Your task to perform on an android device: delete browsing data in the chrome app Image 0: 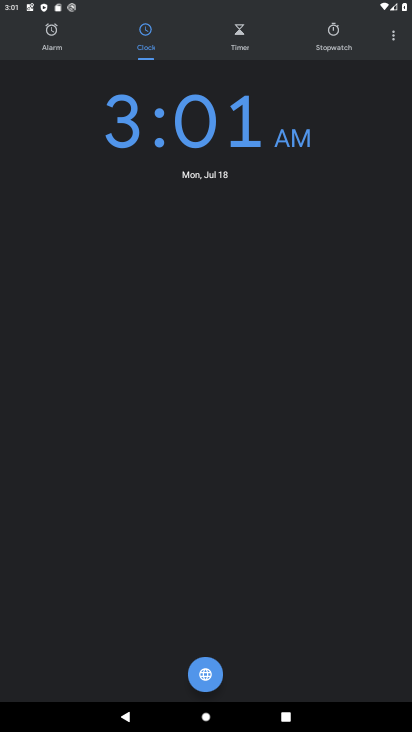
Step 0: press home button
Your task to perform on an android device: delete browsing data in the chrome app Image 1: 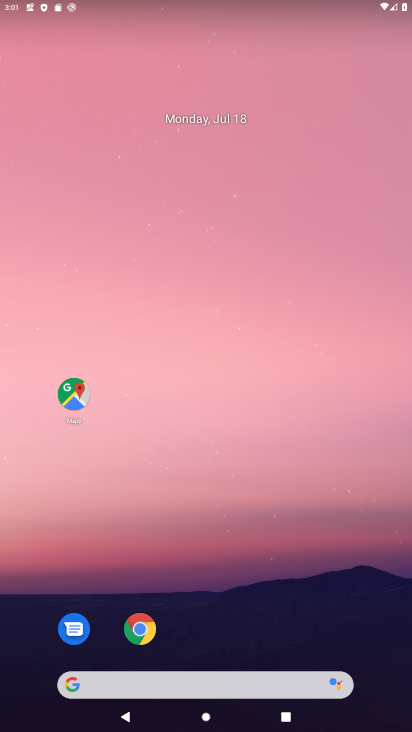
Step 1: click (139, 624)
Your task to perform on an android device: delete browsing data in the chrome app Image 2: 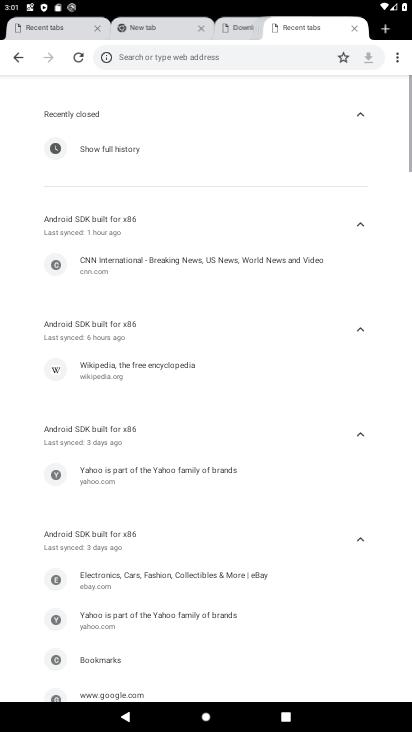
Step 2: click (393, 56)
Your task to perform on an android device: delete browsing data in the chrome app Image 3: 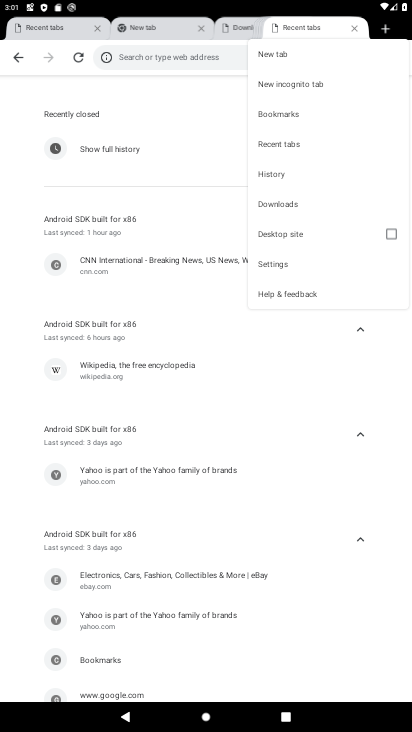
Step 3: click (284, 170)
Your task to perform on an android device: delete browsing data in the chrome app Image 4: 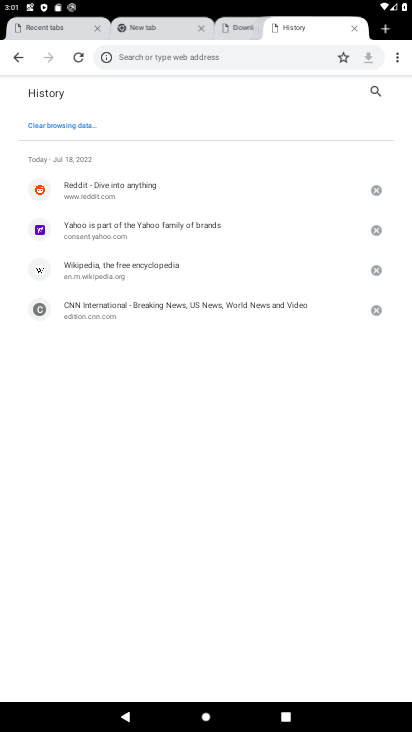
Step 4: click (82, 123)
Your task to perform on an android device: delete browsing data in the chrome app Image 5: 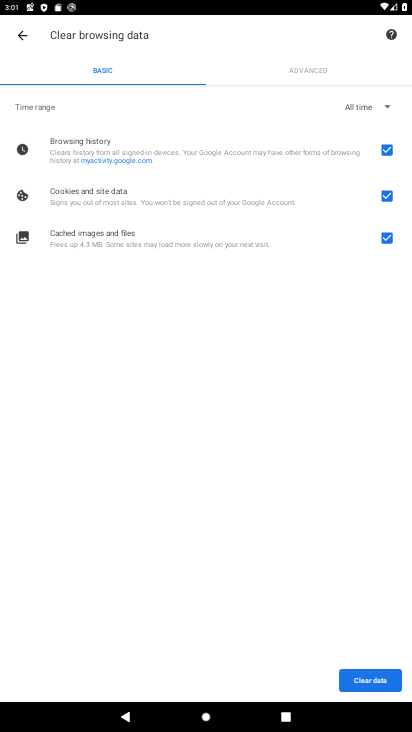
Step 5: click (371, 679)
Your task to perform on an android device: delete browsing data in the chrome app Image 6: 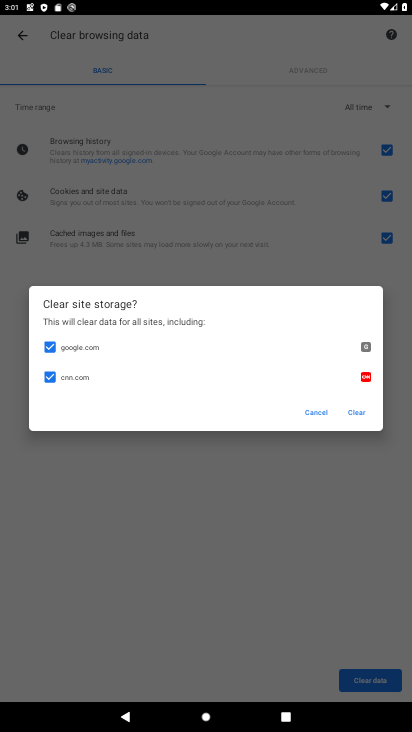
Step 6: click (364, 411)
Your task to perform on an android device: delete browsing data in the chrome app Image 7: 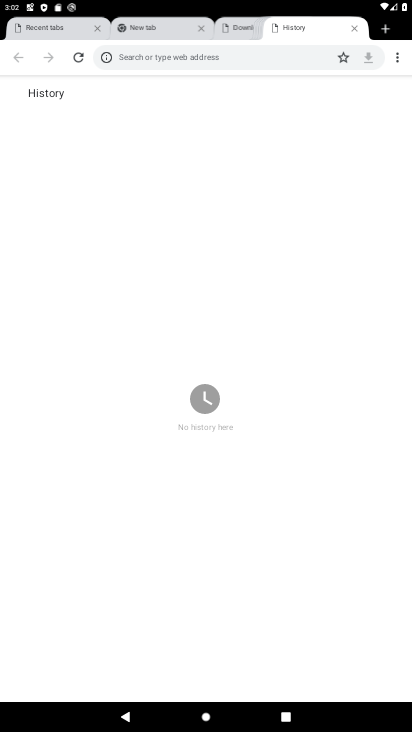
Step 7: task complete